Your task to perform on an android device: Open display settings Image 0: 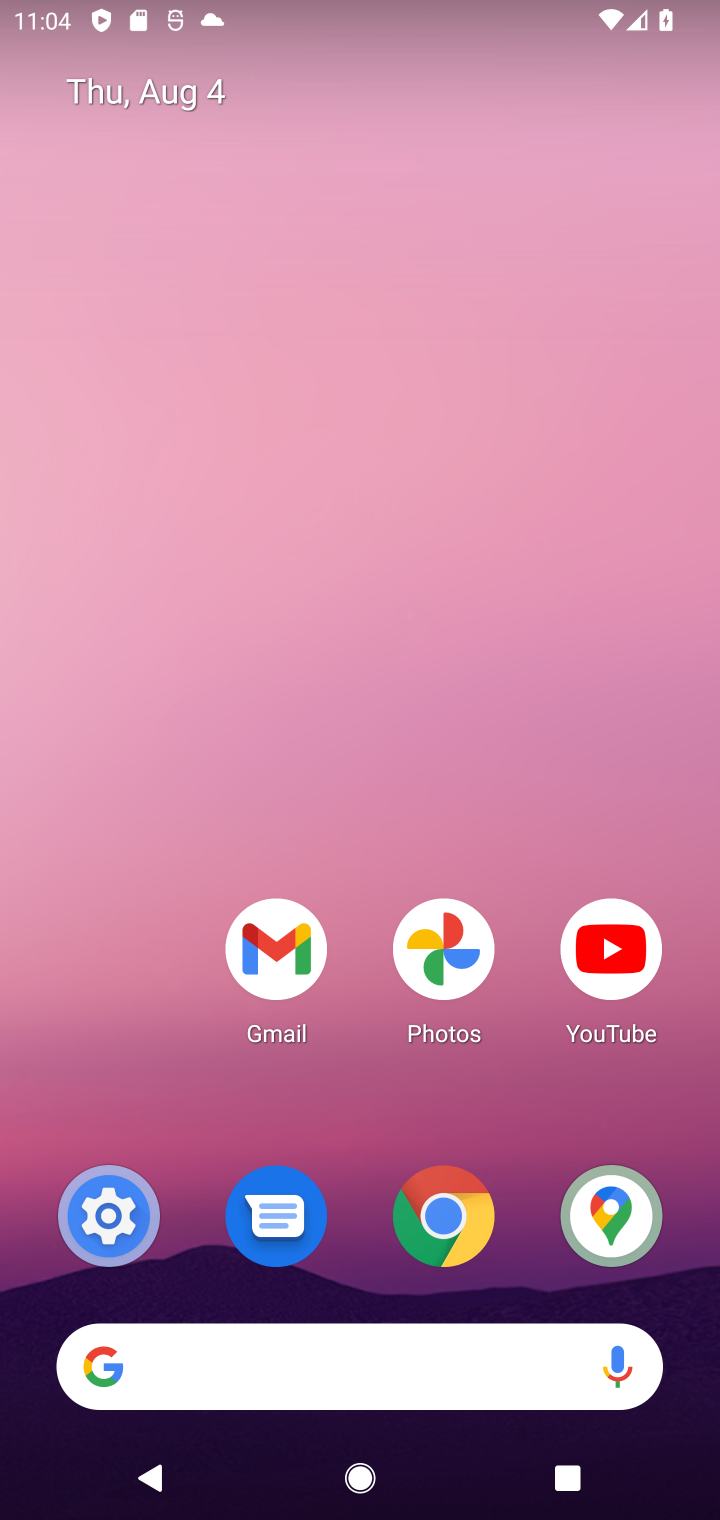
Step 0: click (106, 1220)
Your task to perform on an android device: Open display settings Image 1: 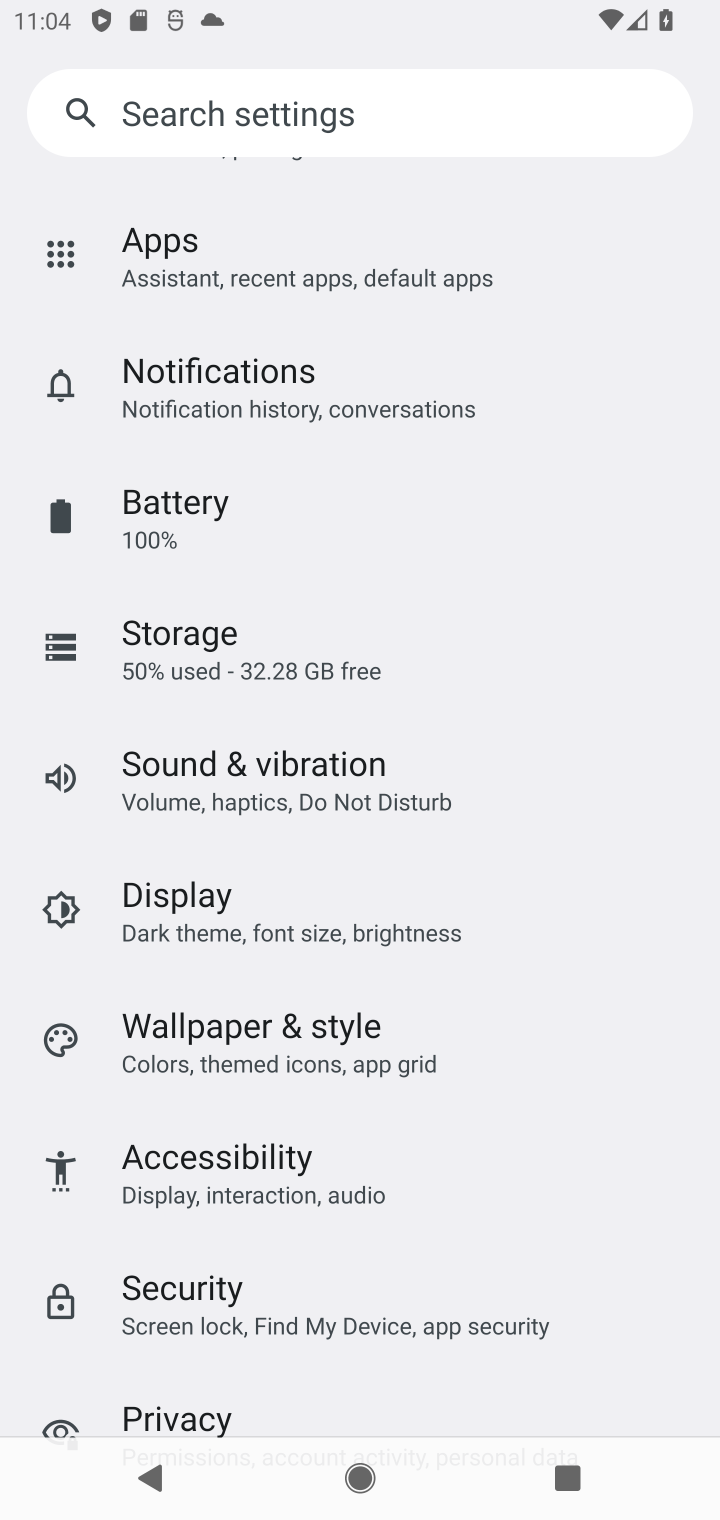
Step 1: click (164, 925)
Your task to perform on an android device: Open display settings Image 2: 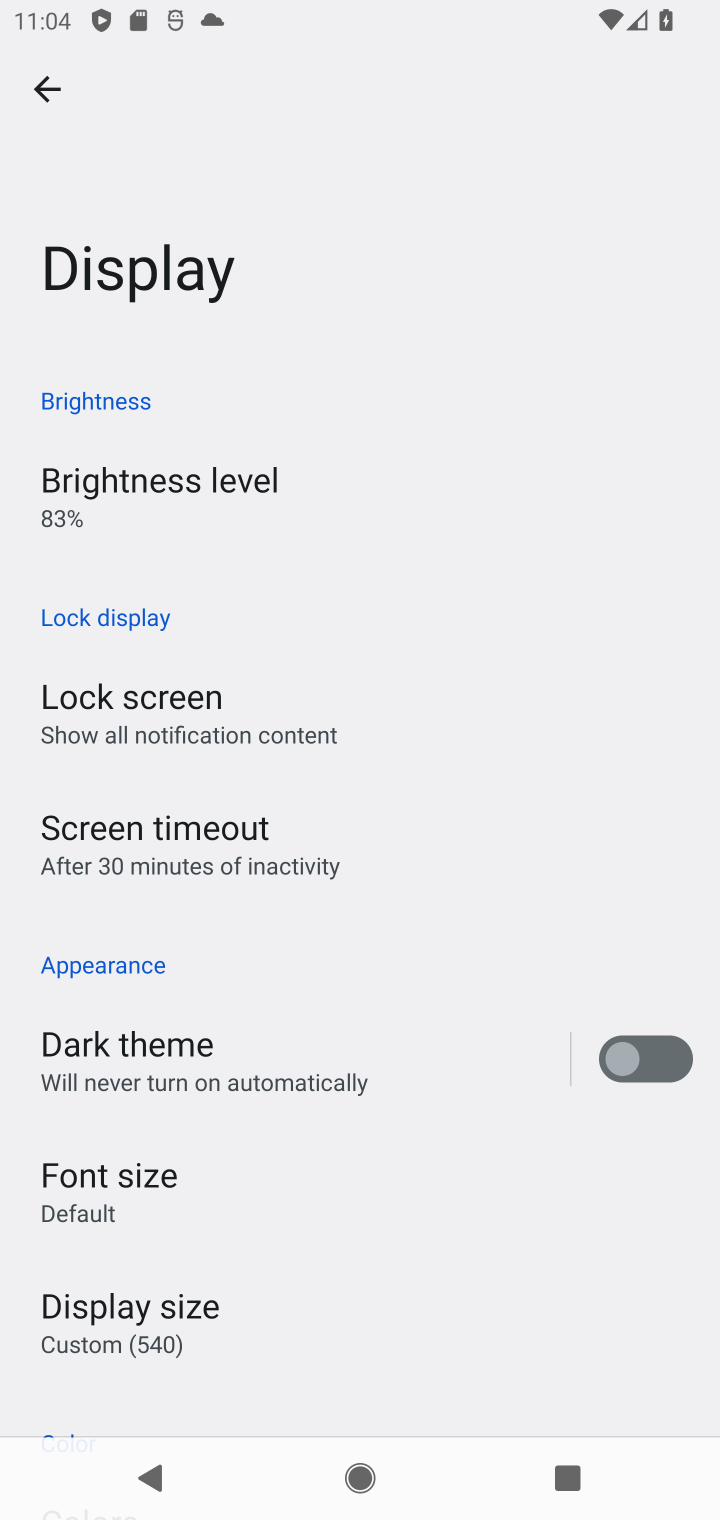
Step 2: task complete